Your task to perform on an android device: turn on airplane mode Image 0: 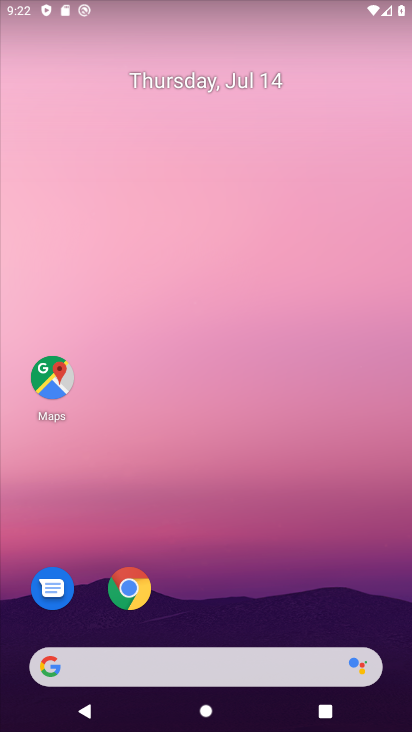
Step 0: drag from (312, 6) to (312, 644)
Your task to perform on an android device: turn on airplane mode Image 1: 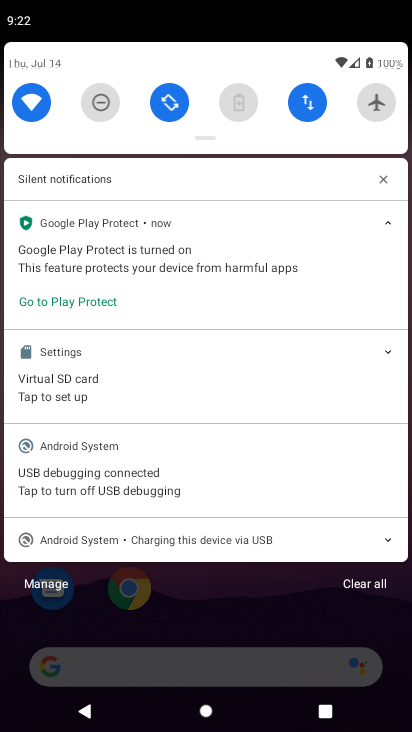
Step 1: click (381, 102)
Your task to perform on an android device: turn on airplane mode Image 2: 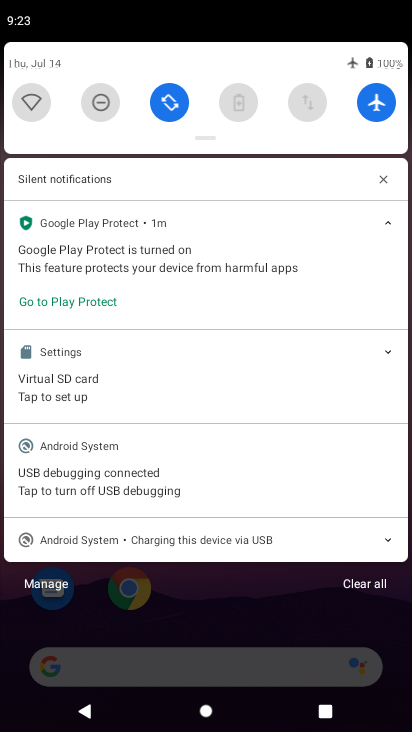
Step 2: task complete